Your task to perform on an android device: Go to wifi settings Image 0: 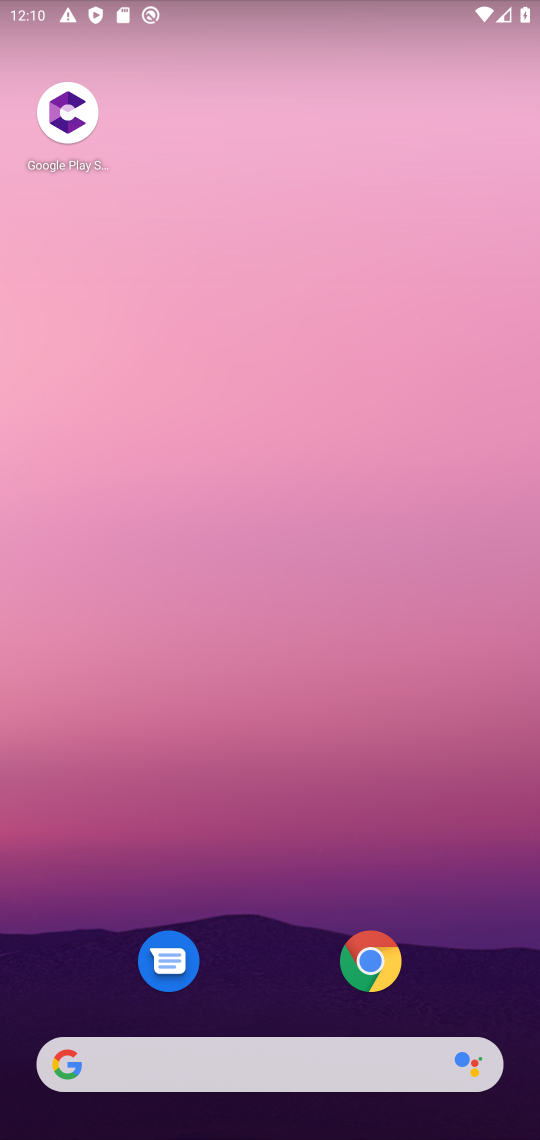
Step 0: drag from (288, 21) to (161, 719)
Your task to perform on an android device: Go to wifi settings Image 1: 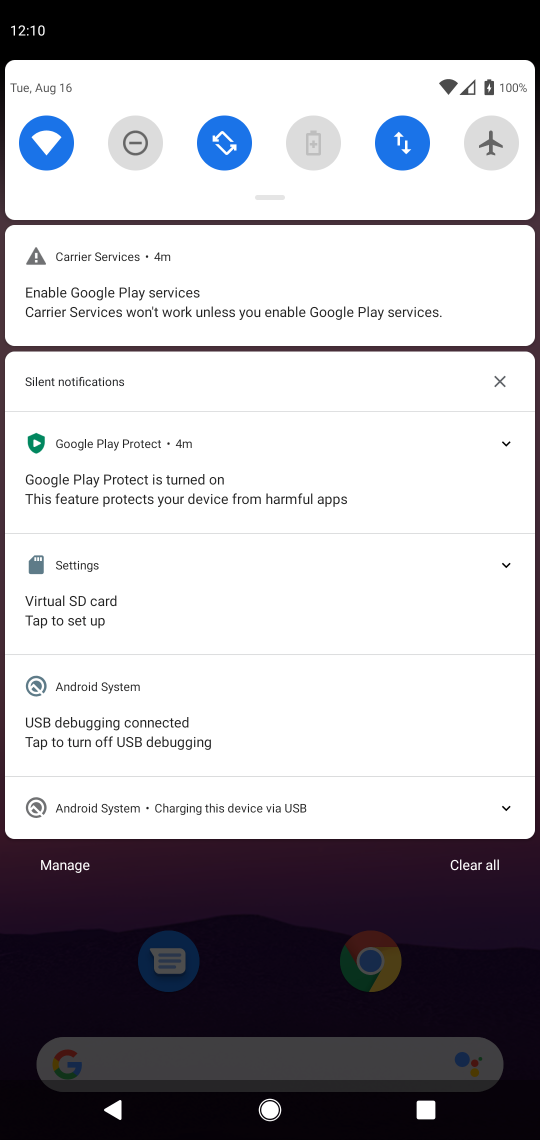
Step 1: click (48, 149)
Your task to perform on an android device: Go to wifi settings Image 2: 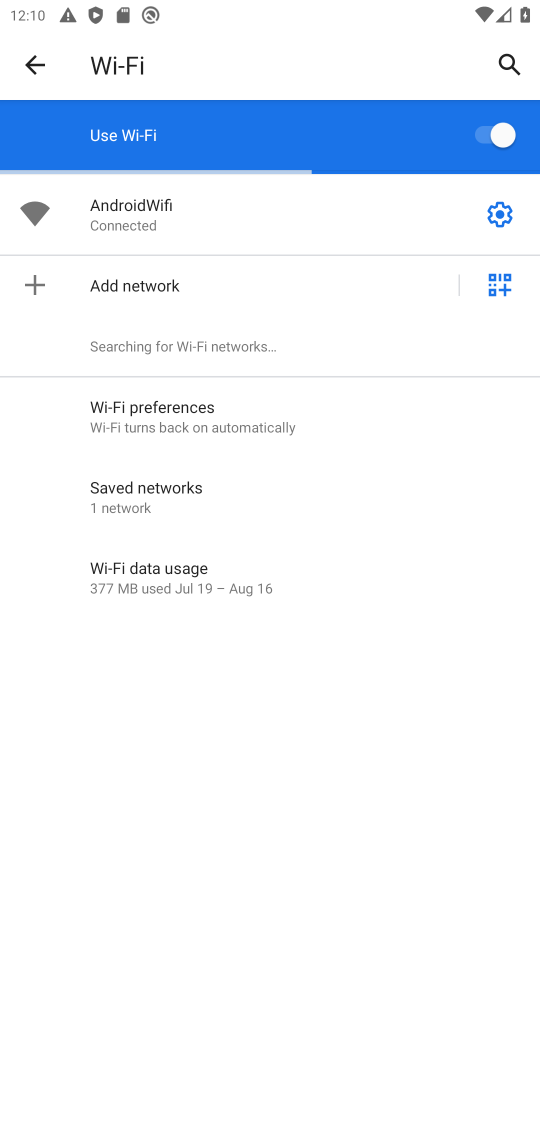
Step 2: task complete